Your task to perform on an android device: Go to wifi settings Image 0: 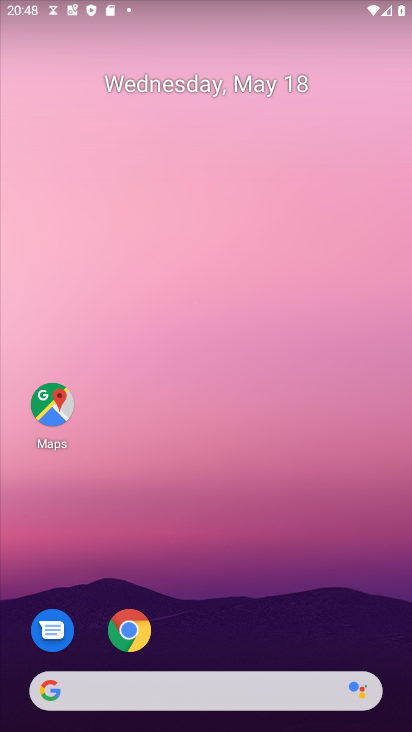
Step 0: press home button
Your task to perform on an android device: Go to wifi settings Image 1: 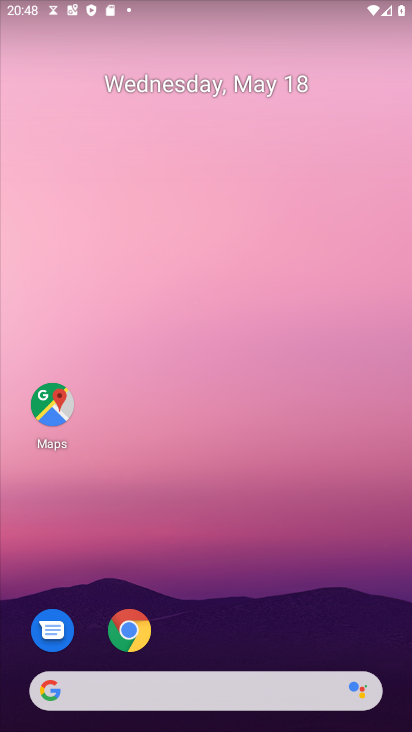
Step 1: drag from (179, 684) to (299, 289)
Your task to perform on an android device: Go to wifi settings Image 2: 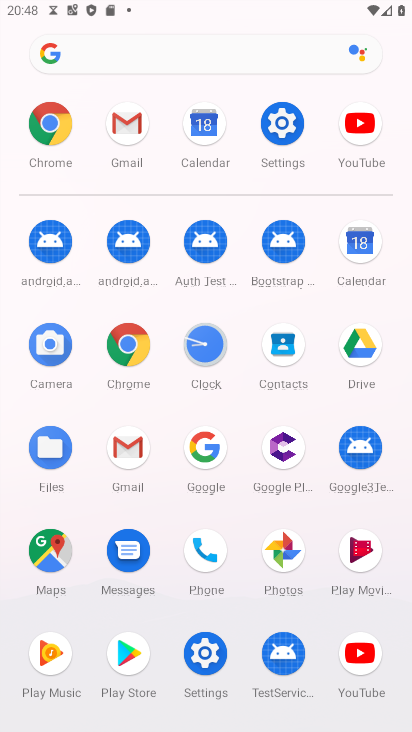
Step 2: click (278, 132)
Your task to perform on an android device: Go to wifi settings Image 3: 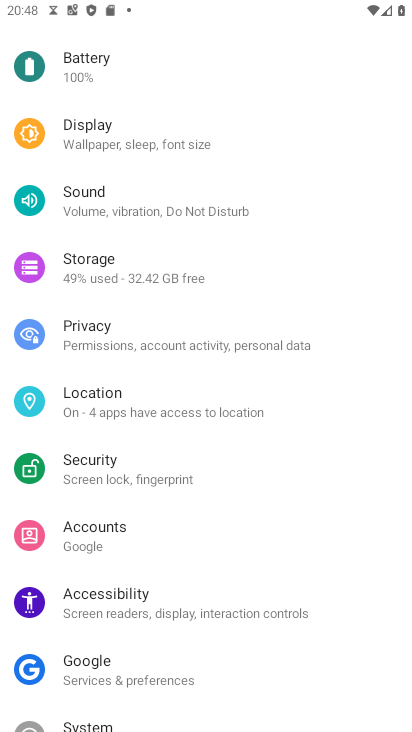
Step 3: drag from (286, 110) to (226, 573)
Your task to perform on an android device: Go to wifi settings Image 4: 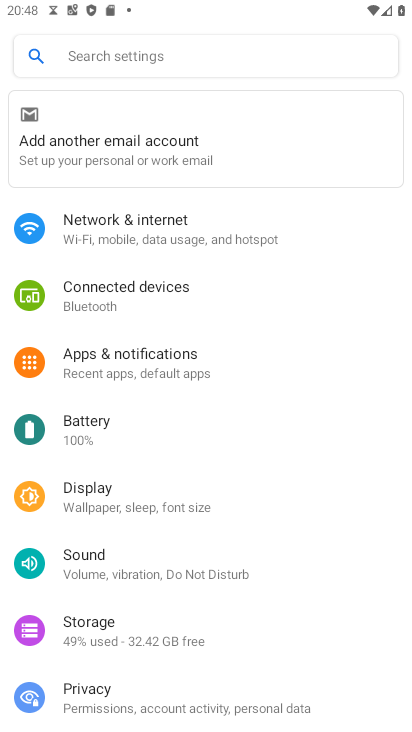
Step 4: click (150, 222)
Your task to perform on an android device: Go to wifi settings Image 5: 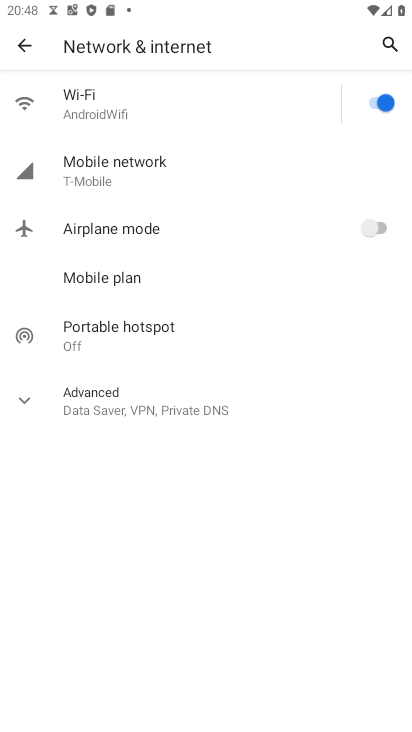
Step 5: click (125, 106)
Your task to perform on an android device: Go to wifi settings Image 6: 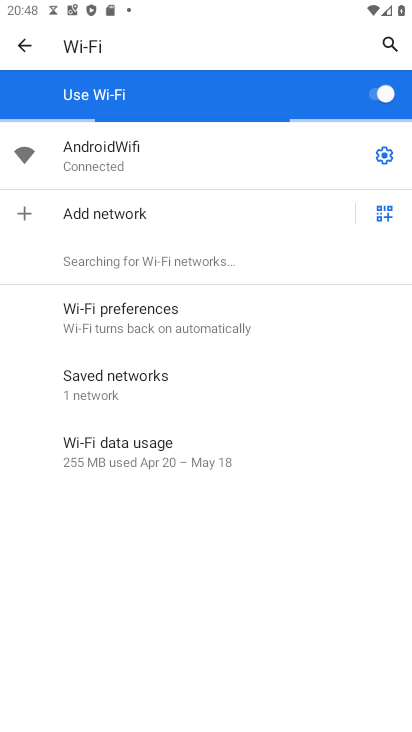
Step 6: task complete